Your task to perform on an android device: Open Google Maps and go to "Timeline" Image 0: 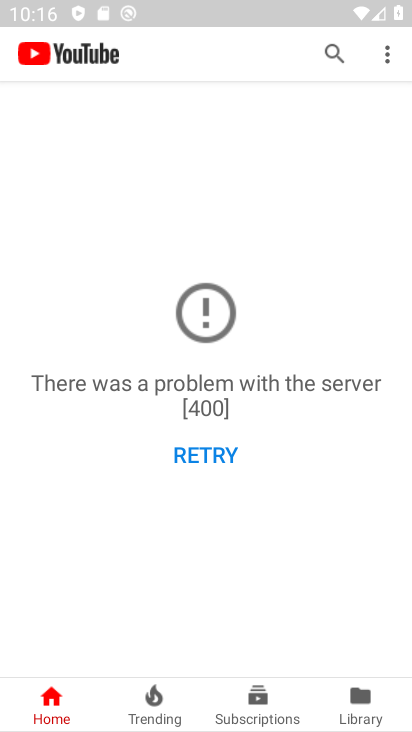
Step 0: press home button
Your task to perform on an android device: Open Google Maps and go to "Timeline" Image 1: 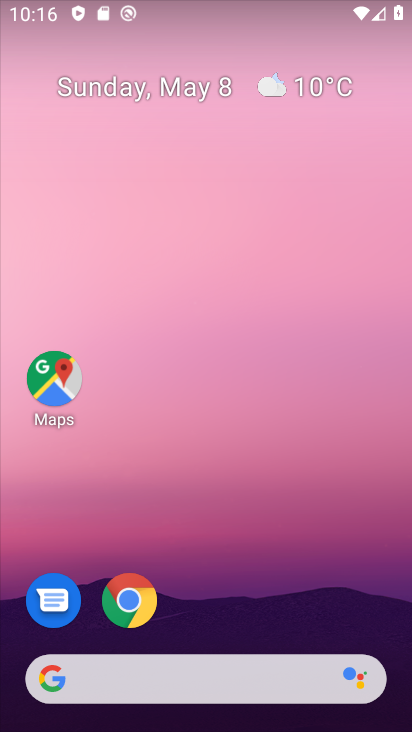
Step 1: click (45, 377)
Your task to perform on an android device: Open Google Maps and go to "Timeline" Image 2: 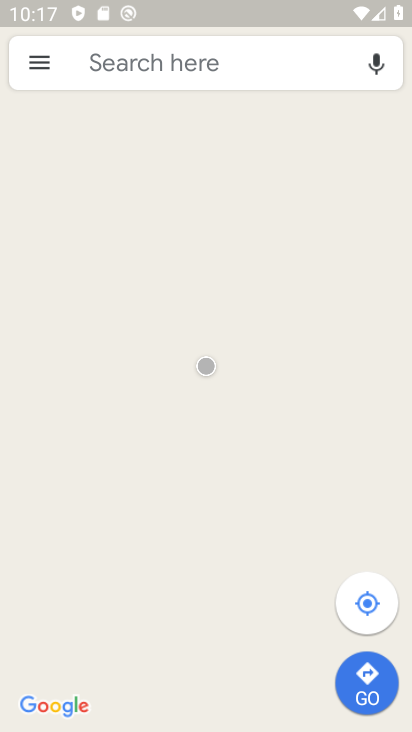
Step 2: click (42, 70)
Your task to perform on an android device: Open Google Maps and go to "Timeline" Image 3: 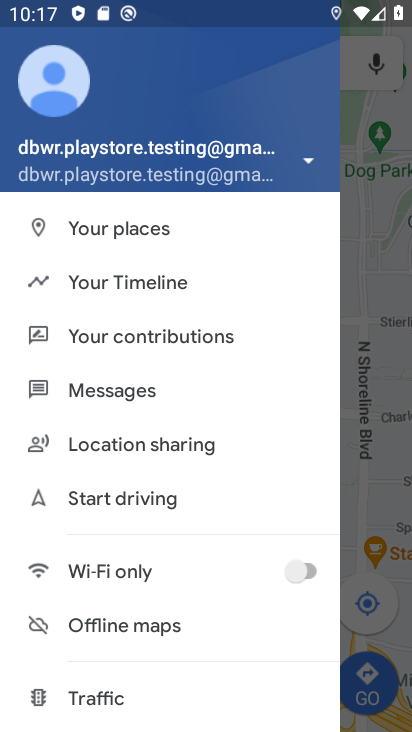
Step 3: click (79, 284)
Your task to perform on an android device: Open Google Maps and go to "Timeline" Image 4: 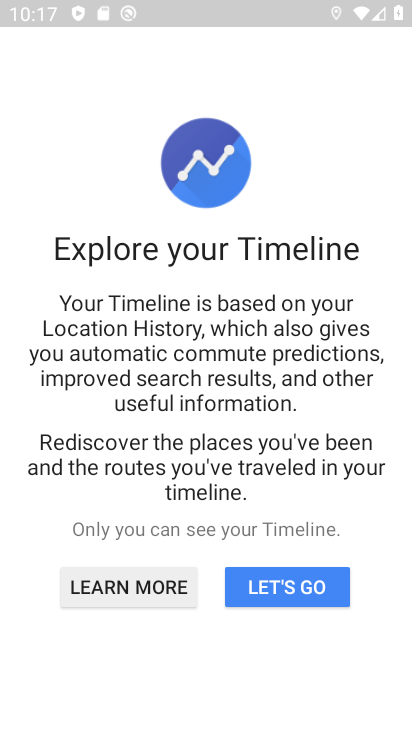
Step 4: click (266, 593)
Your task to perform on an android device: Open Google Maps and go to "Timeline" Image 5: 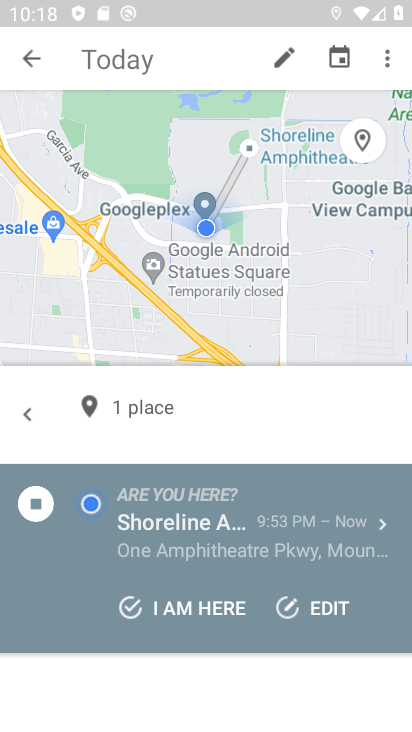
Step 5: task complete